Your task to perform on an android device: toggle location history Image 0: 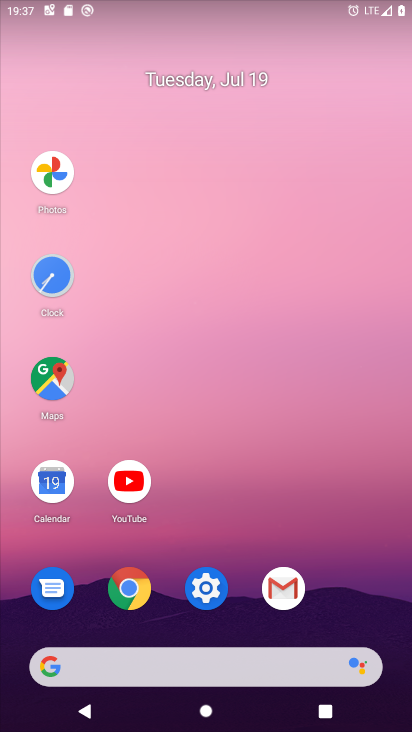
Step 0: click (51, 382)
Your task to perform on an android device: toggle location history Image 1: 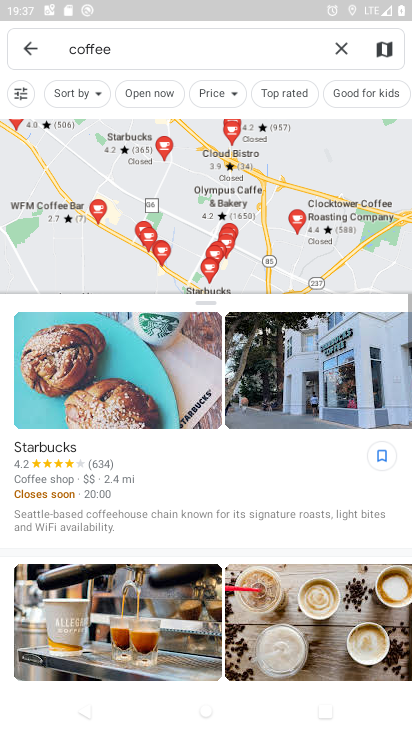
Step 1: click (32, 44)
Your task to perform on an android device: toggle location history Image 2: 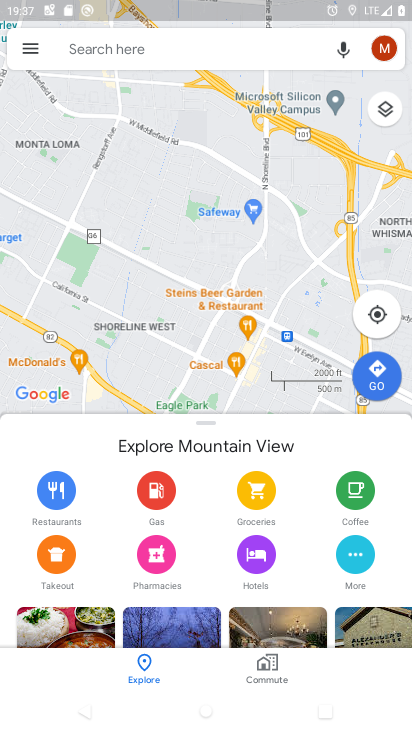
Step 2: click (29, 49)
Your task to perform on an android device: toggle location history Image 3: 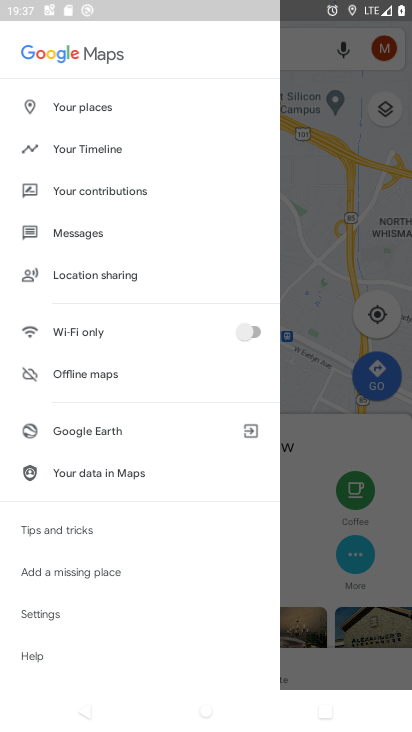
Step 3: click (102, 146)
Your task to perform on an android device: toggle location history Image 4: 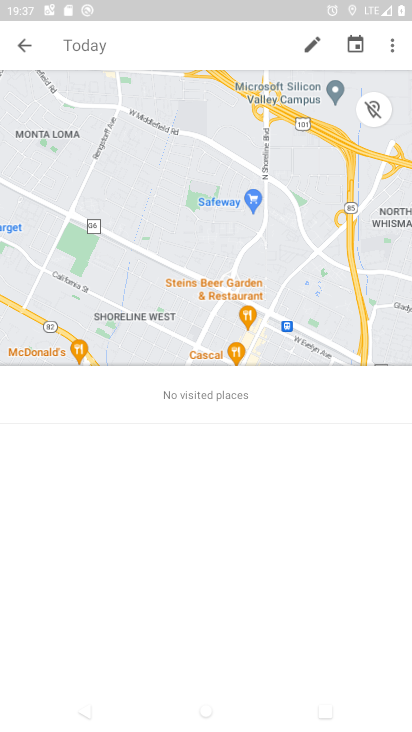
Step 4: click (394, 51)
Your task to perform on an android device: toggle location history Image 5: 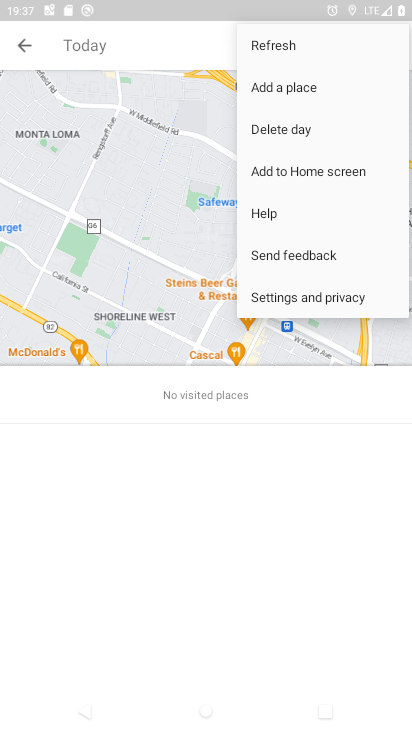
Step 5: click (321, 294)
Your task to perform on an android device: toggle location history Image 6: 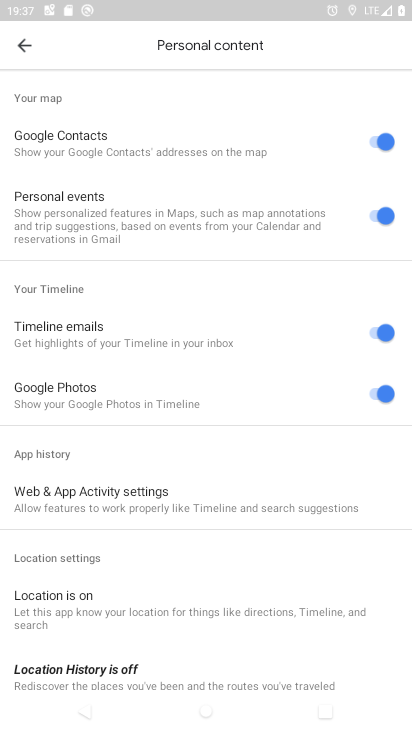
Step 6: click (84, 669)
Your task to perform on an android device: toggle location history Image 7: 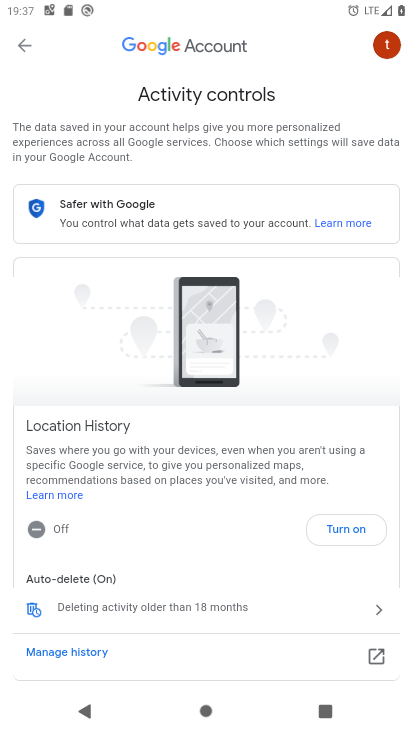
Step 7: click (341, 527)
Your task to perform on an android device: toggle location history Image 8: 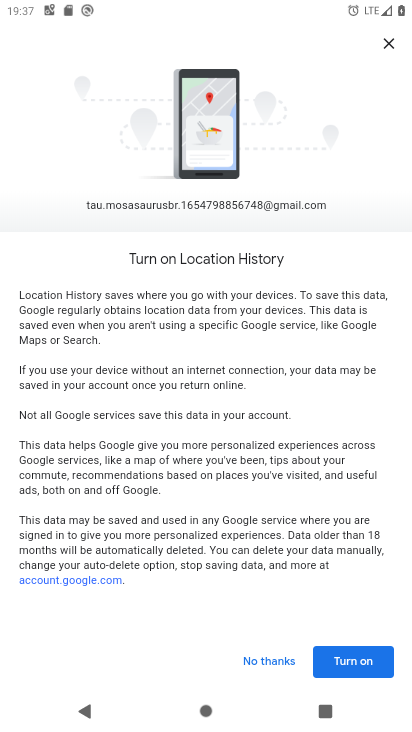
Step 8: click (350, 666)
Your task to perform on an android device: toggle location history Image 9: 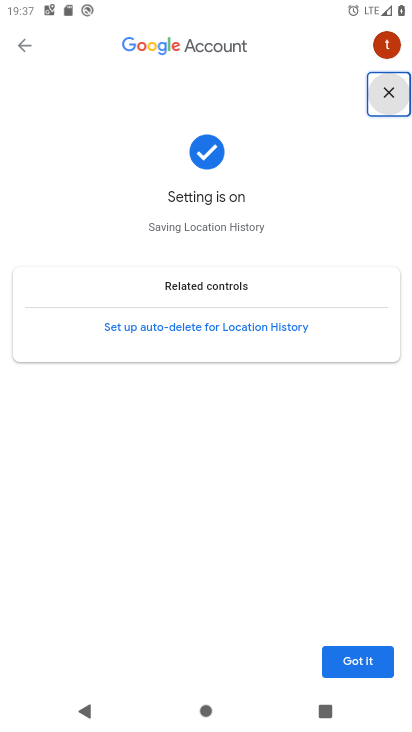
Step 9: click (350, 666)
Your task to perform on an android device: toggle location history Image 10: 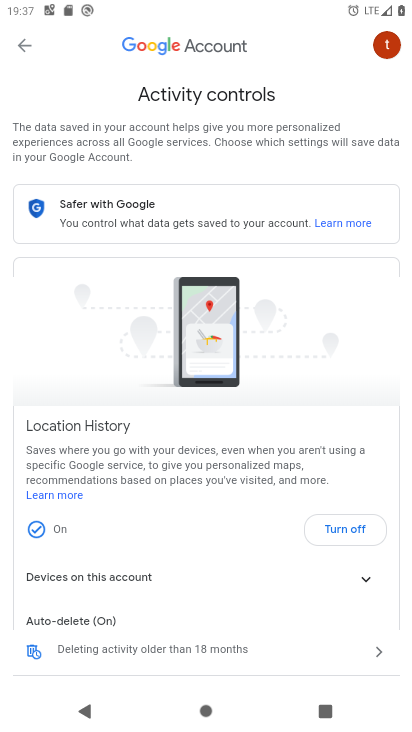
Step 10: task complete